Your task to perform on an android device: Open wifi settings Image 0: 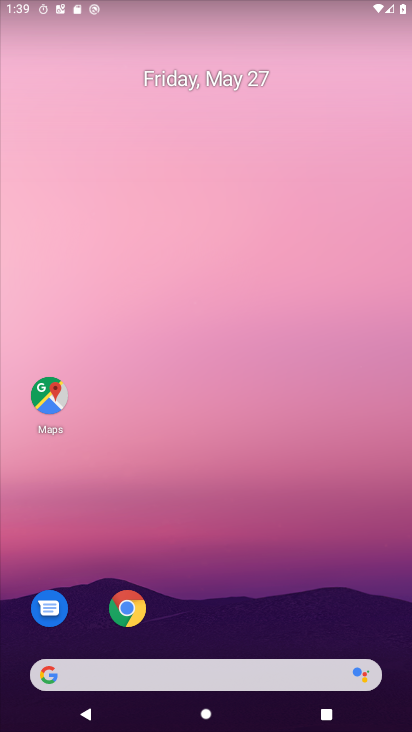
Step 0: drag from (398, 695) to (367, 184)
Your task to perform on an android device: Open wifi settings Image 1: 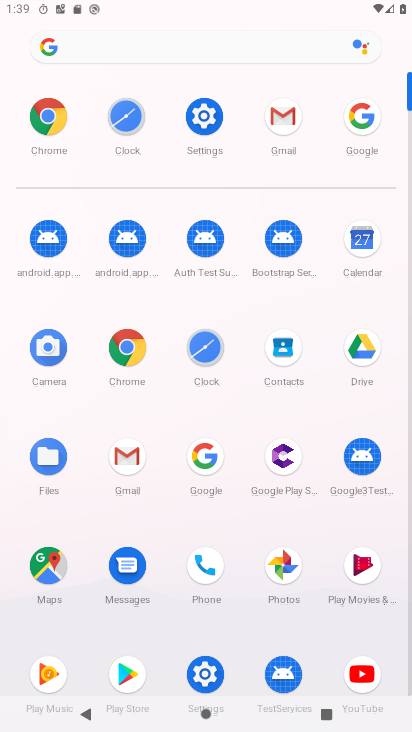
Step 1: click (197, 118)
Your task to perform on an android device: Open wifi settings Image 2: 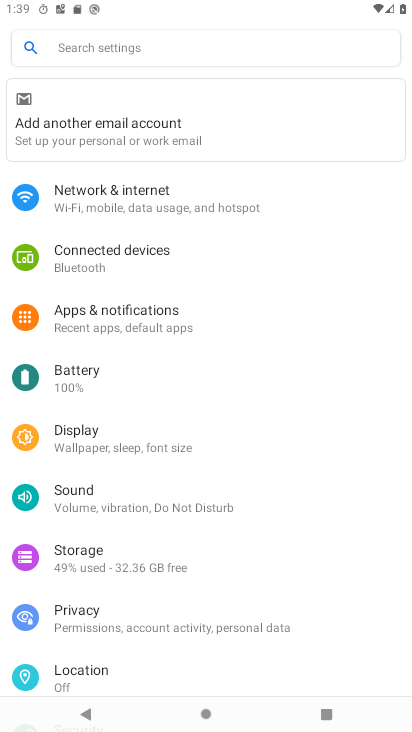
Step 2: click (111, 195)
Your task to perform on an android device: Open wifi settings Image 3: 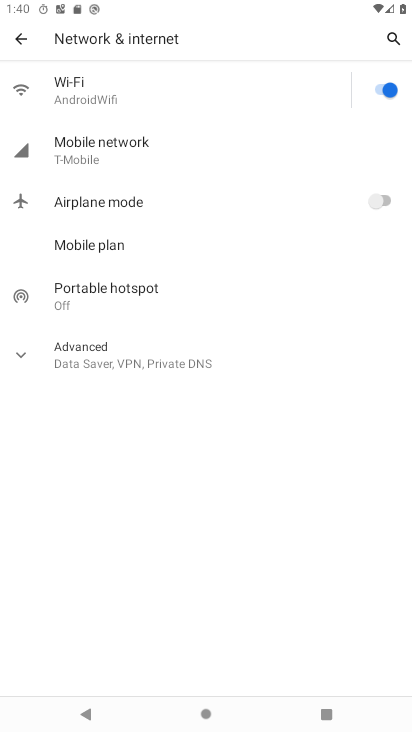
Step 3: click (219, 101)
Your task to perform on an android device: Open wifi settings Image 4: 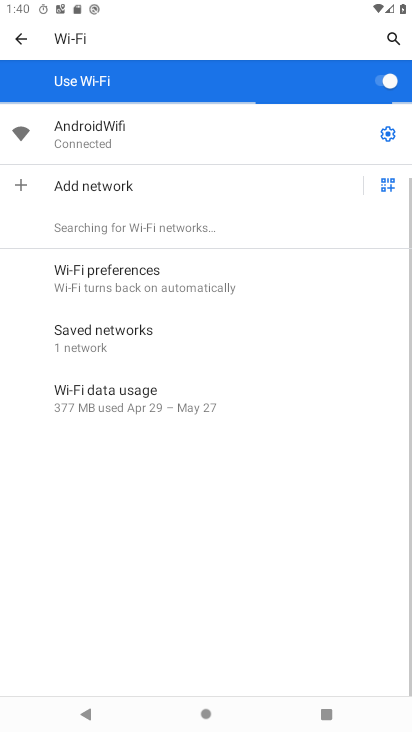
Step 4: click (385, 136)
Your task to perform on an android device: Open wifi settings Image 5: 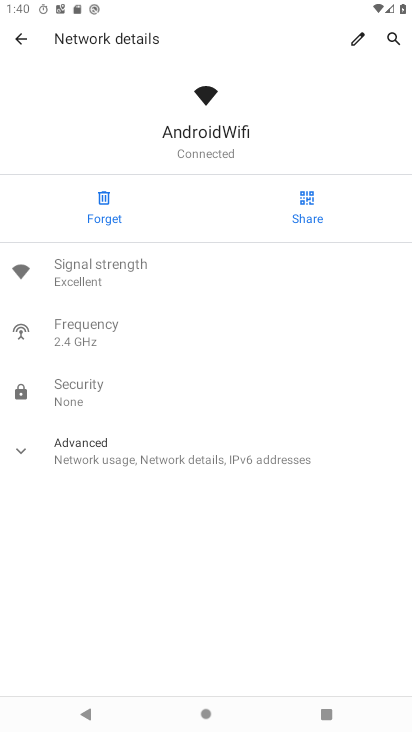
Step 5: task complete